Your task to perform on an android device: Search for Mexican restaurants on Maps Image 0: 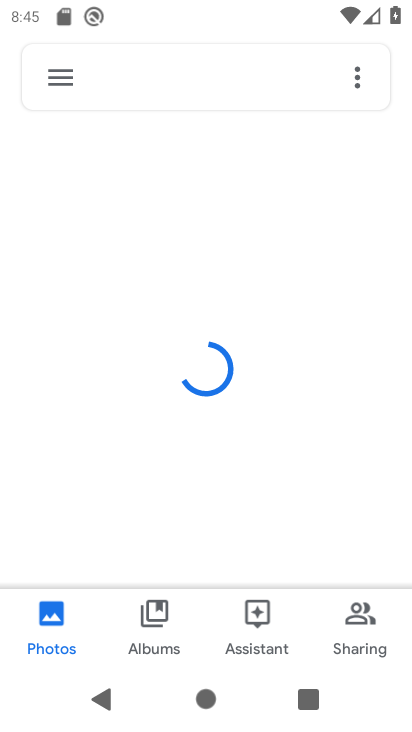
Step 0: press home button
Your task to perform on an android device: Search for Mexican restaurants on Maps Image 1: 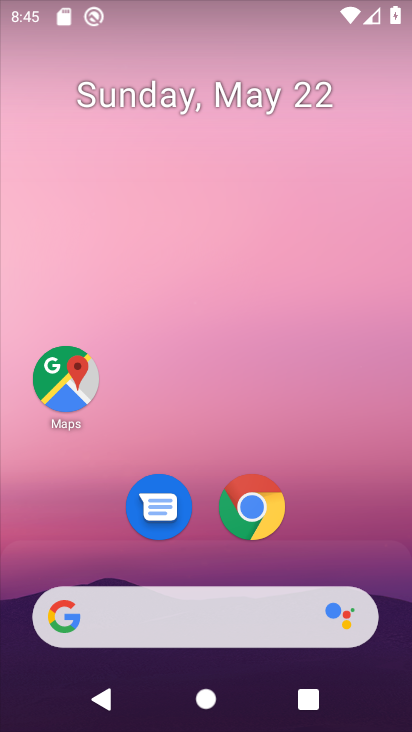
Step 1: click (80, 378)
Your task to perform on an android device: Search for Mexican restaurants on Maps Image 2: 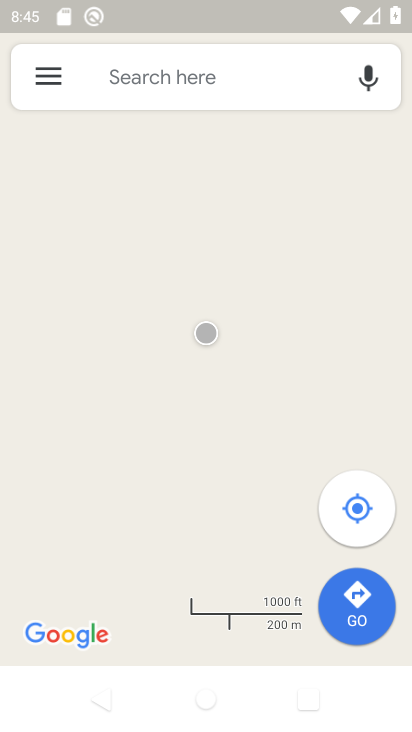
Step 2: click (199, 70)
Your task to perform on an android device: Search for Mexican restaurants on Maps Image 3: 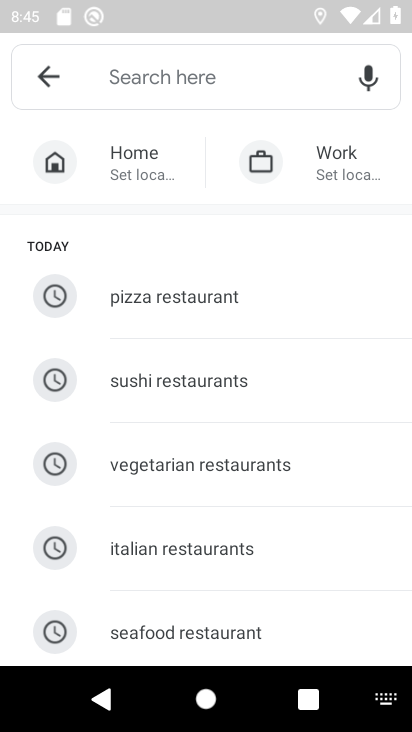
Step 3: type "mexican restaurant"
Your task to perform on an android device: Search for Mexican restaurants on Maps Image 4: 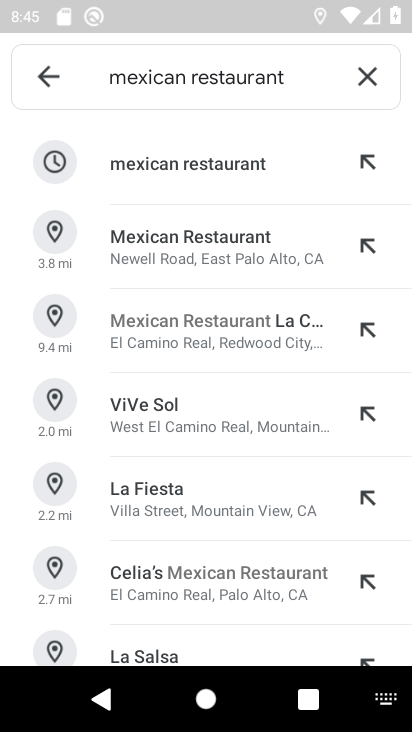
Step 4: click (121, 180)
Your task to perform on an android device: Search for Mexican restaurants on Maps Image 5: 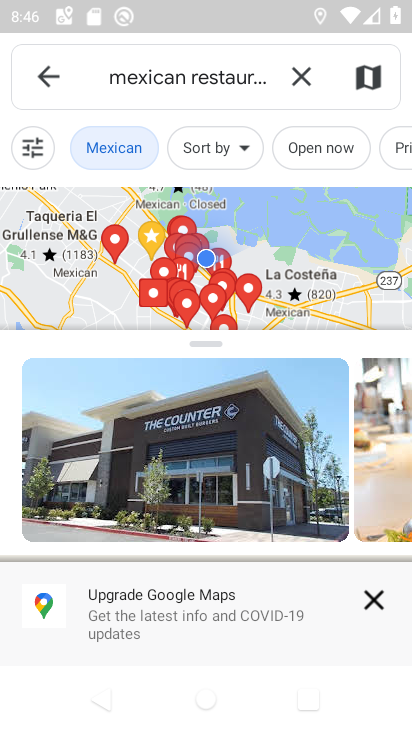
Step 5: task complete